Your task to perform on an android device: toggle translation in the chrome app Image 0: 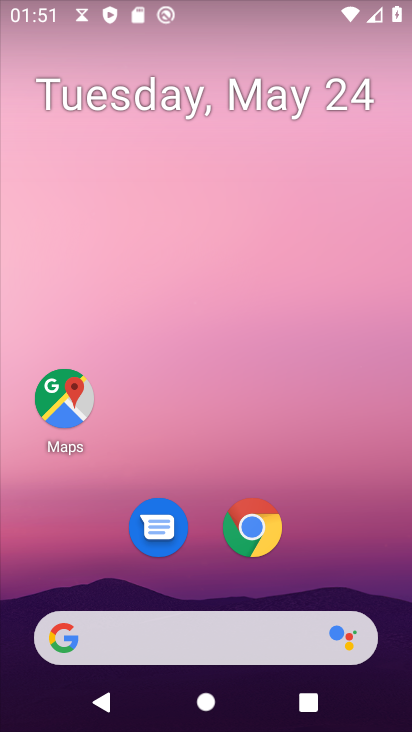
Step 0: press home button
Your task to perform on an android device: toggle translation in the chrome app Image 1: 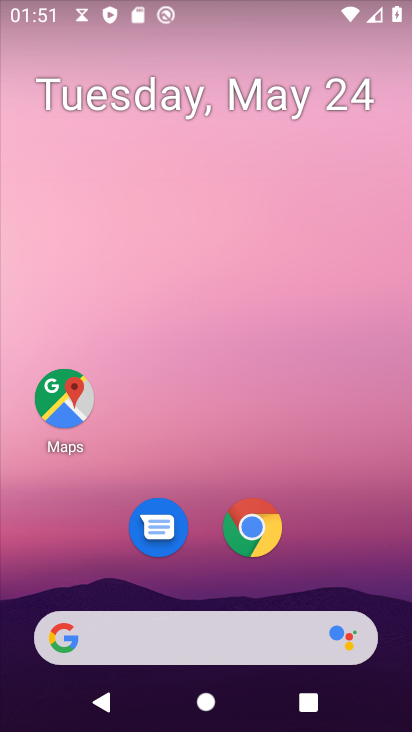
Step 1: click (254, 547)
Your task to perform on an android device: toggle translation in the chrome app Image 2: 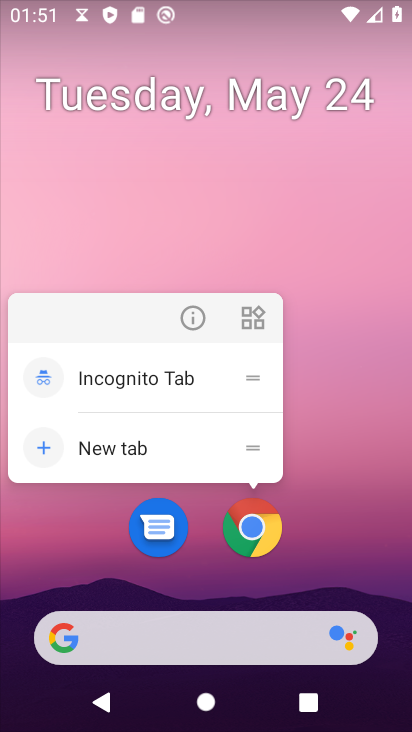
Step 2: click (260, 537)
Your task to perform on an android device: toggle translation in the chrome app Image 3: 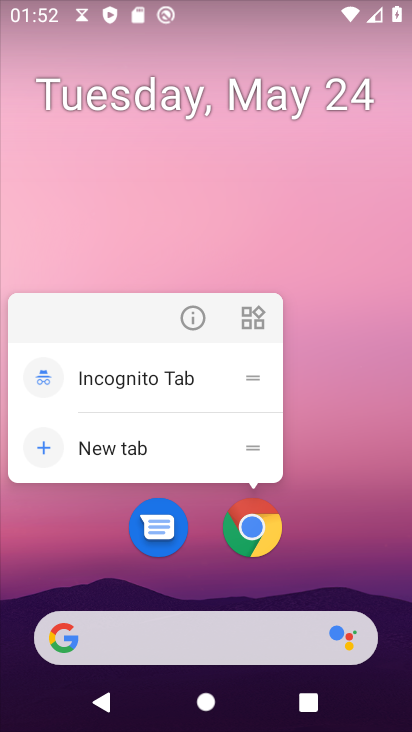
Step 3: click (259, 533)
Your task to perform on an android device: toggle translation in the chrome app Image 4: 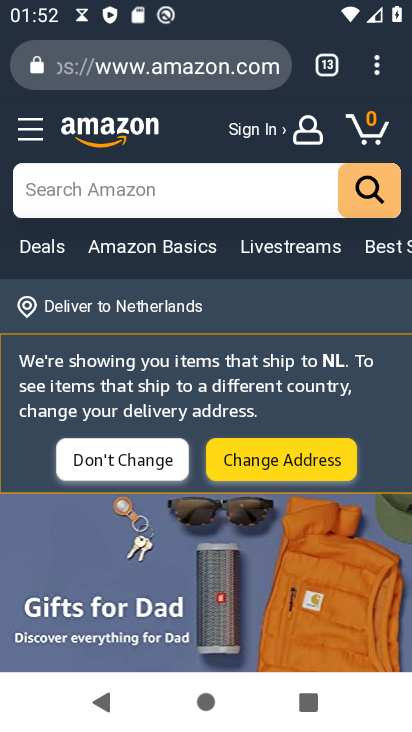
Step 4: drag from (376, 67) to (268, 577)
Your task to perform on an android device: toggle translation in the chrome app Image 5: 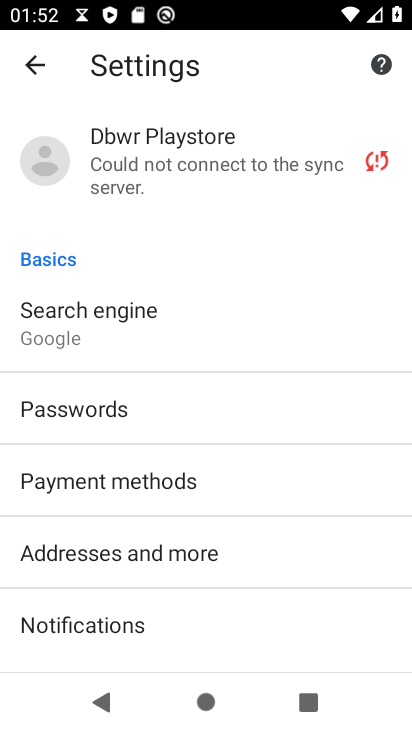
Step 5: drag from (208, 639) to (360, 205)
Your task to perform on an android device: toggle translation in the chrome app Image 6: 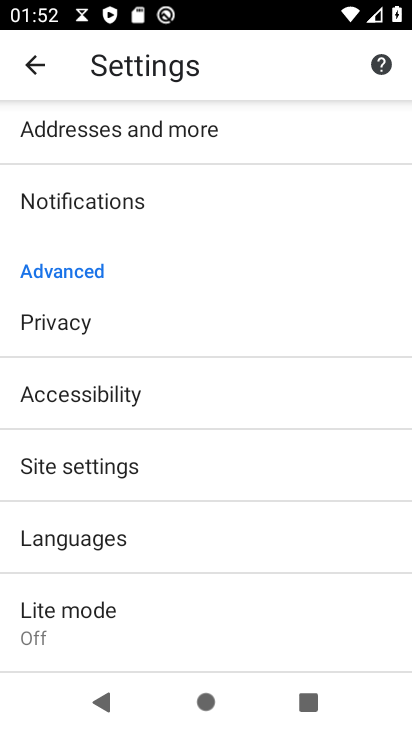
Step 6: click (120, 534)
Your task to perform on an android device: toggle translation in the chrome app Image 7: 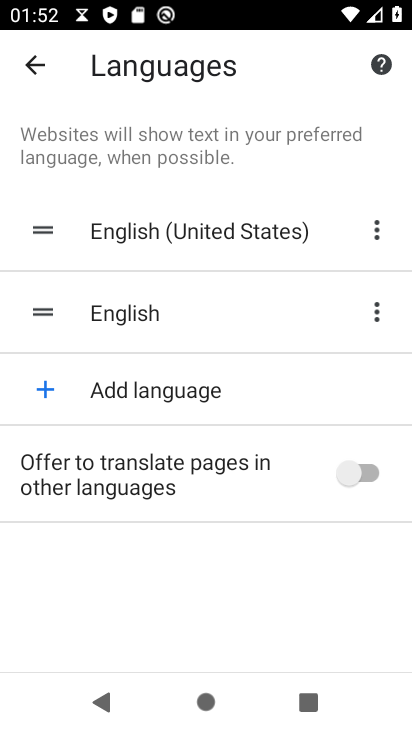
Step 7: click (374, 473)
Your task to perform on an android device: toggle translation in the chrome app Image 8: 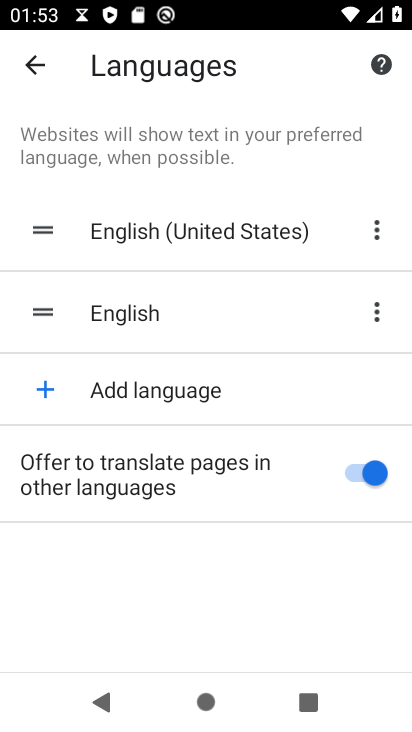
Step 8: task complete